Your task to perform on an android device: check the backup settings in the google photos Image 0: 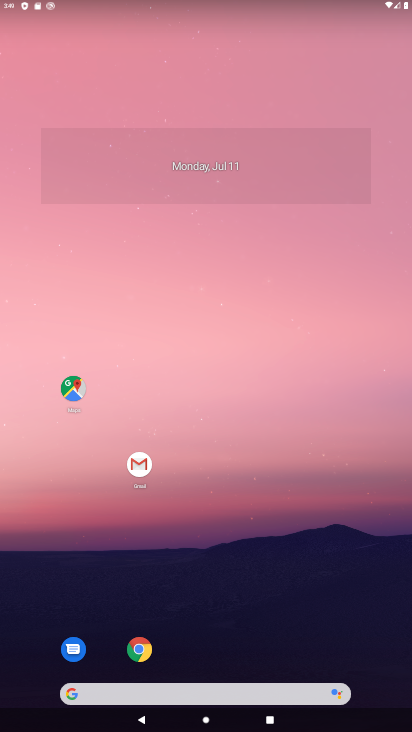
Step 0: drag from (158, 375) to (235, 199)
Your task to perform on an android device: check the backup settings in the google photos Image 1: 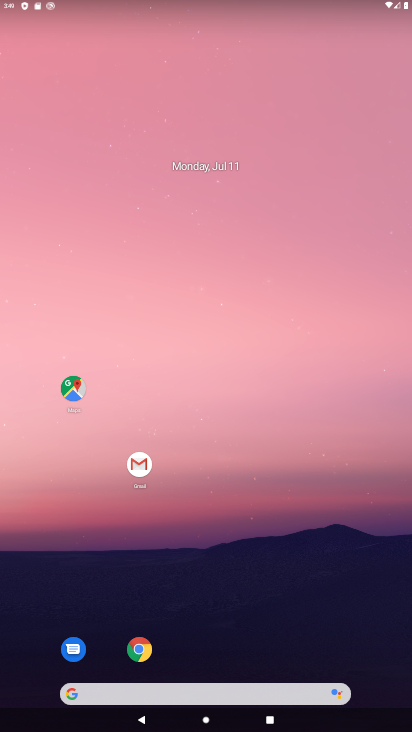
Step 1: drag from (25, 626) to (316, 0)
Your task to perform on an android device: check the backup settings in the google photos Image 2: 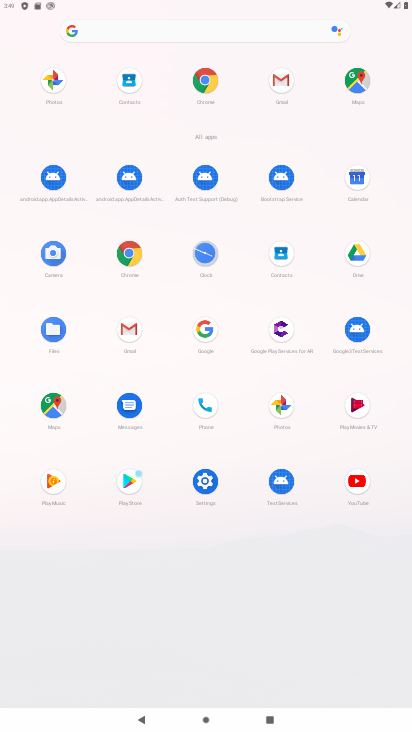
Step 2: click (276, 411)
Your task to perform on an android device: check the backup settings in the google photos Image 3: 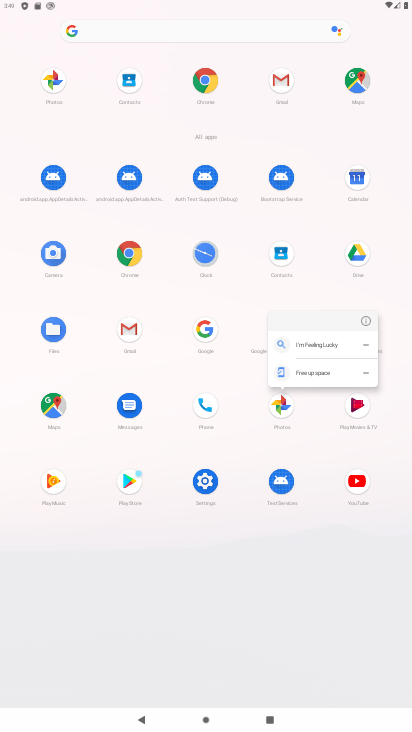
Step 3: click (274, 403)
Your task to perform on an android device: check the backup settings in the google photos Image 4: 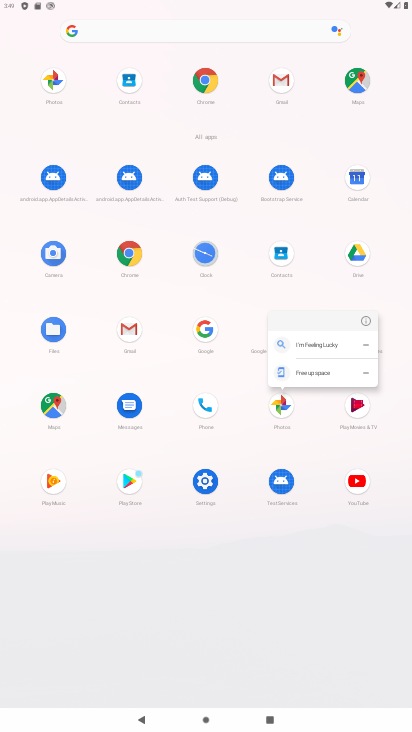
Step 4: click (286, 412)
Your task to perform on an android device: check the backup settings in the google photos Image 5: 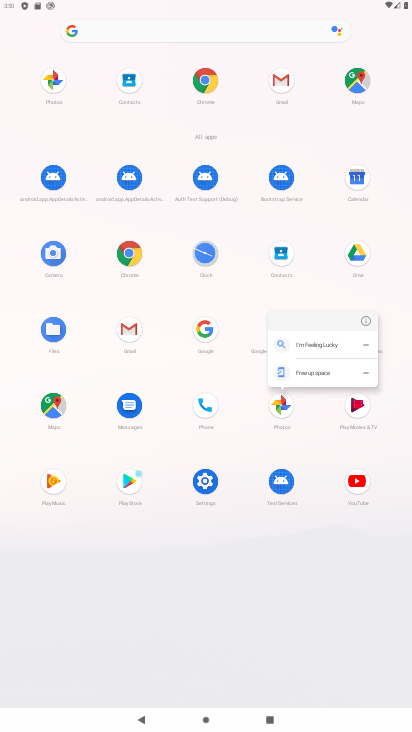
Step 5: click (286, 412)
Your task to perform on an android device: check the backup settings in the google photos Image 6: 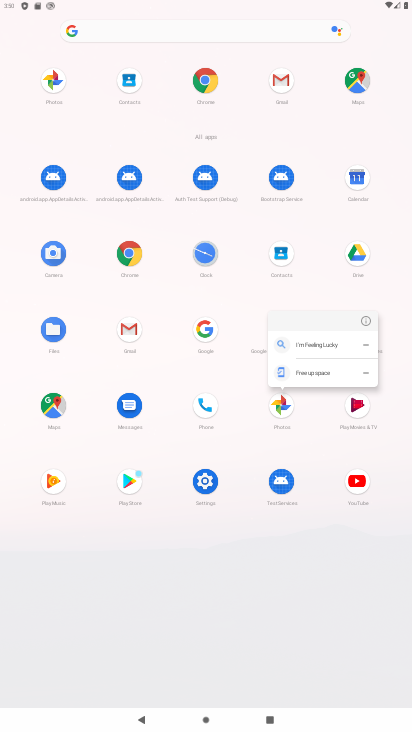
Step 6: click (286, 412)
Your task to perform on an android device: check the backup settings in the google photos Image 7: 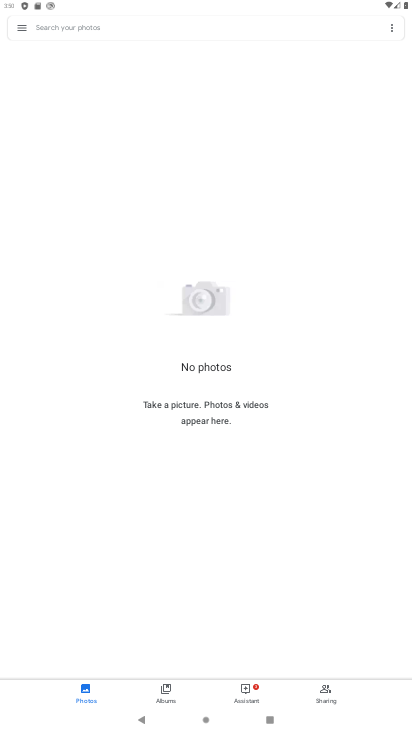
Step 7: click (24, 27)
Your task to perform on an android device: check the backup settings in the google photos Image 8: 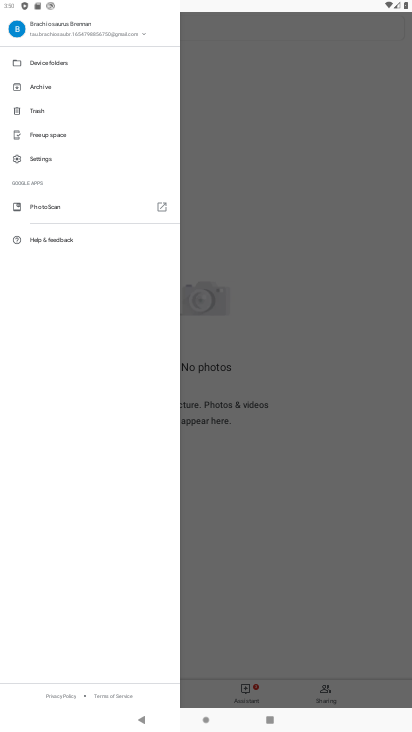
Step 8: click (45, 158)
Your task to perform on an android device: check the backup settings in the google photos Image 9: 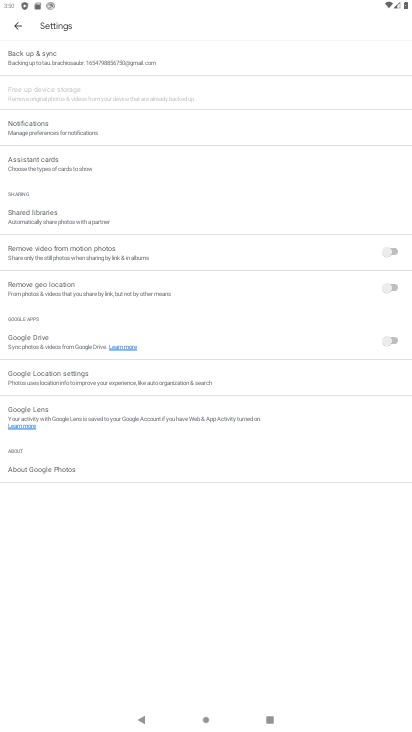
Step 9: click (54, 54)
Your task to perform on an android device: check the backup settings in the google photos Image 10: 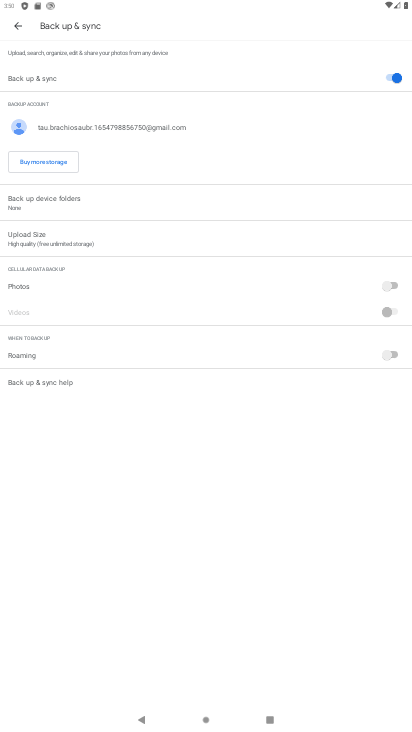
Step 10: task complete